Your task to perform on an android device: toggle sleep mode Image 0: 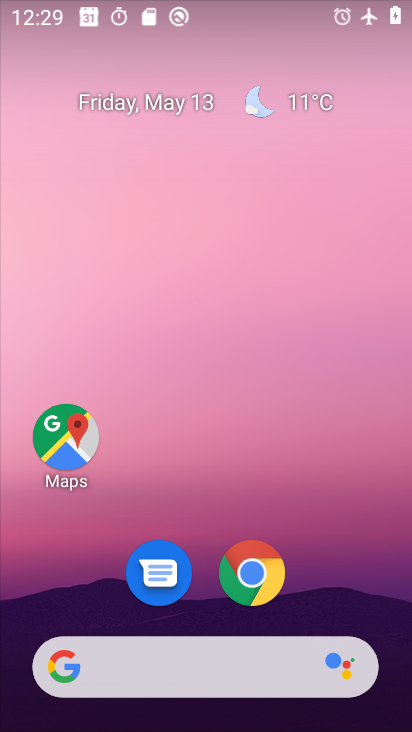
Step 0: drag from (402, 643) to (352, 371)
Your task to perform on an android device: toggle sleep mode Image 1: 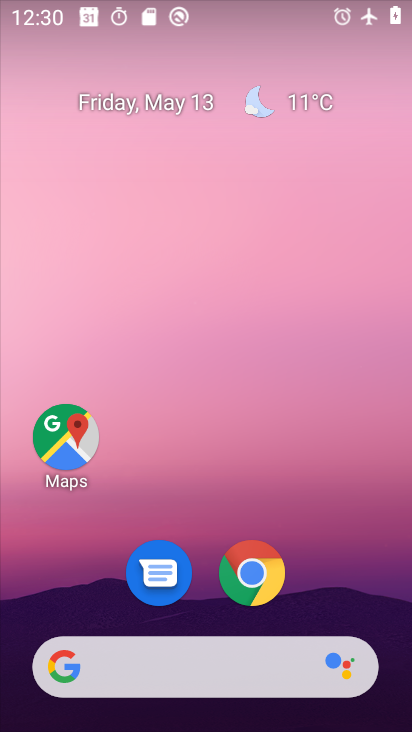
Step 1: drag from (397, 655) to (405, 329)
Your task to perform on an android device: toggle sleep mode Image 2: 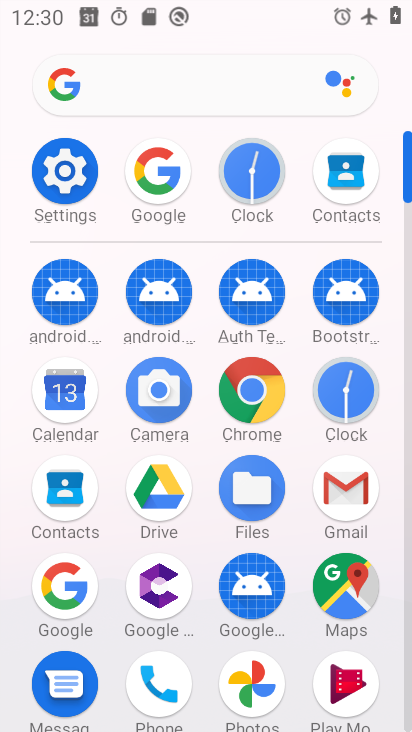
Step 2: click (75, 175)
Your task to perform on an android device: toggle sleep mode Image 3: 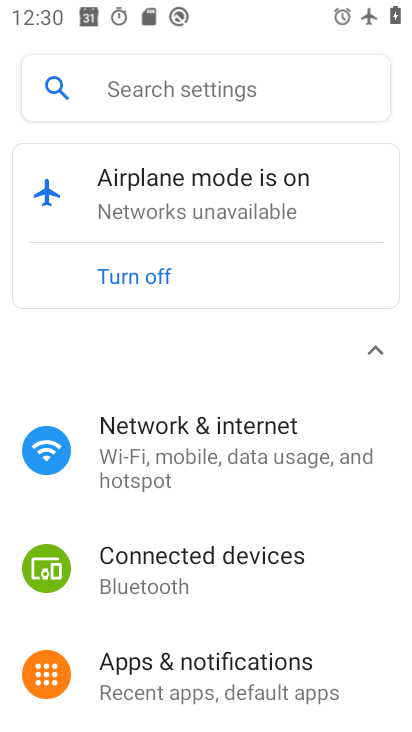
Step 3: drag from (208, 641) to (226, 364)
Your task to perform on an android device: toggle sleep mode Image 4: 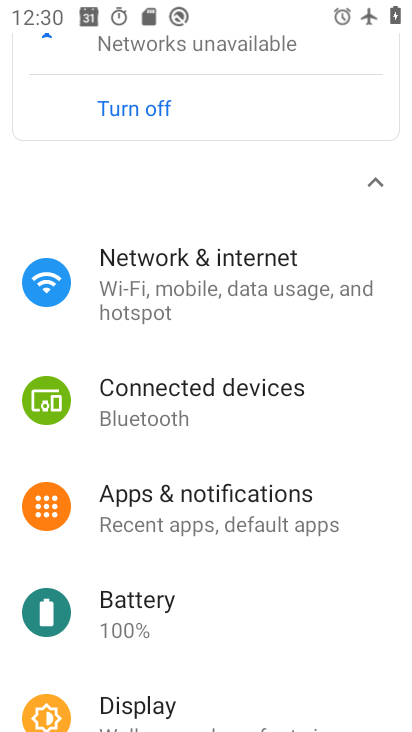
Step 4: click (255, 410)
Your task to perform on an android device: toggle sleep mode Image 5: 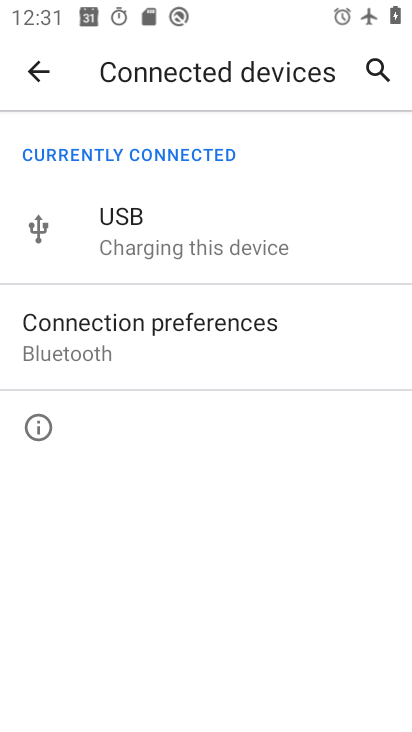
Step 5: click (36, 83)
Your task to perform on an android device: toggle sleep mode Image 6: 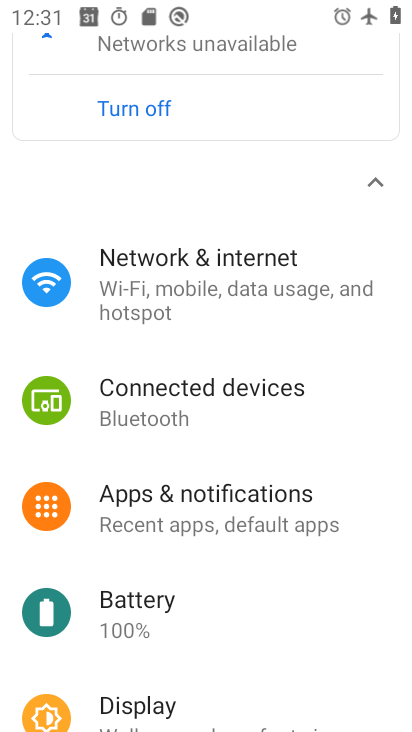
Step 6: click (36, 83)
Your task to perform on an android device: toggle sleep mode Image 7: 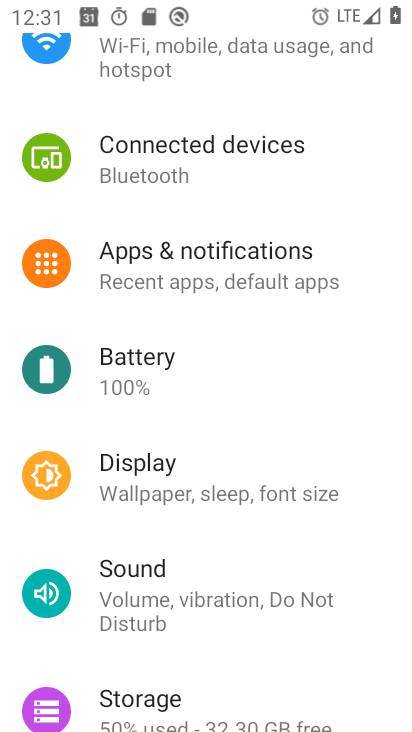
Step 7: click (223, 671)
Your task to perform on an android device: toggle sleep mode Image 8: 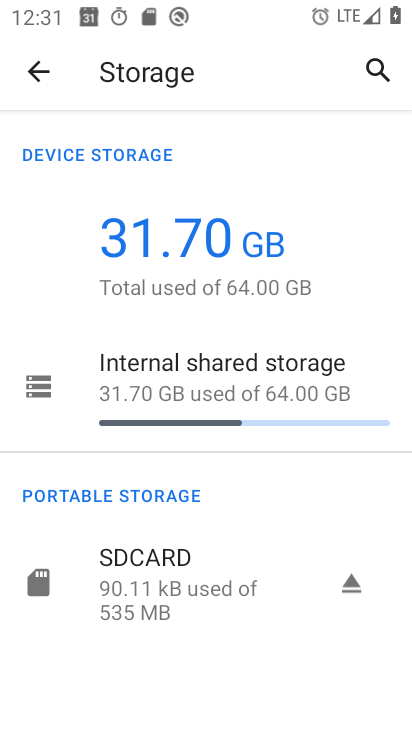
Step 8: click (133, 661)
Your task to perform on an android device: toggle sleep mode Image 9: 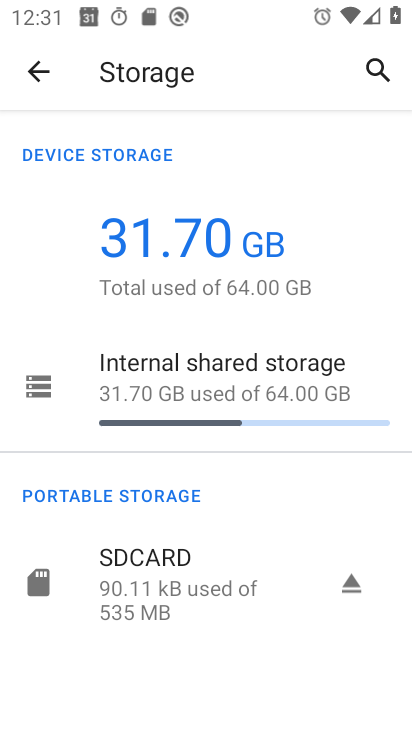
Step 9: click (40, 75)
Your task to perform on an android device: toggle sleep mode Image 10: 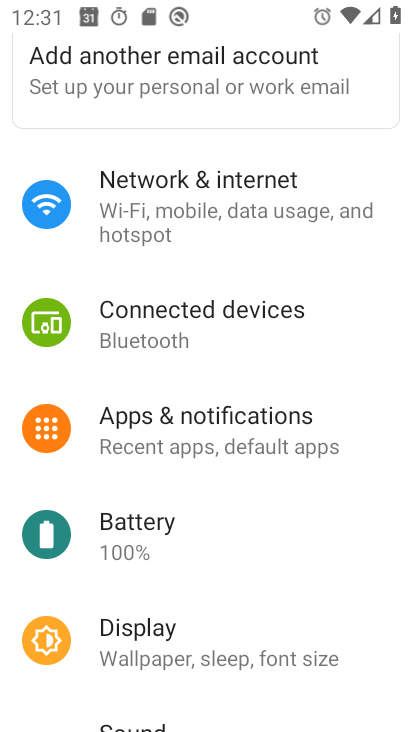
Step 10: click (142, 653)
Your task to perform on an android device: toggle sleep mode Image 11: 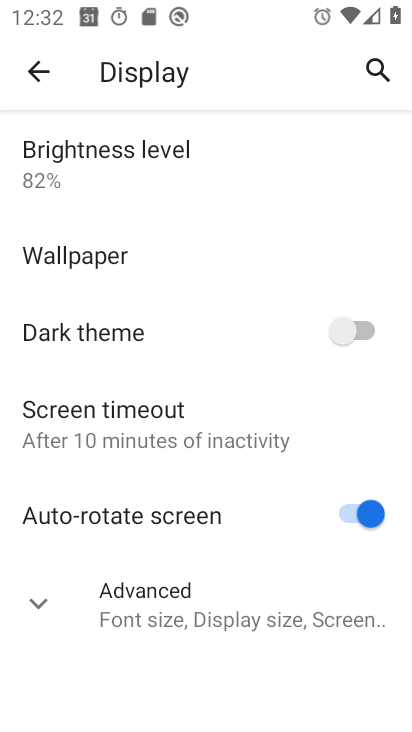
Step 11: click (108, 414)
Your task to perform on an android device: toggle sleep mode Image 12: 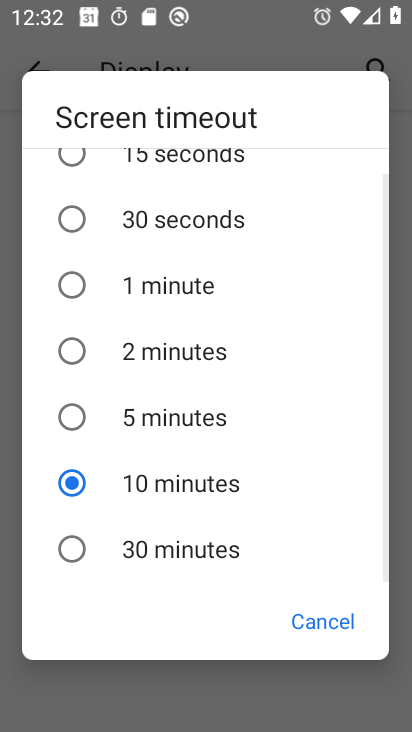
Step 12: click (69, 404)
Your task to perform on an android device: toggle sleep mode Image 13: 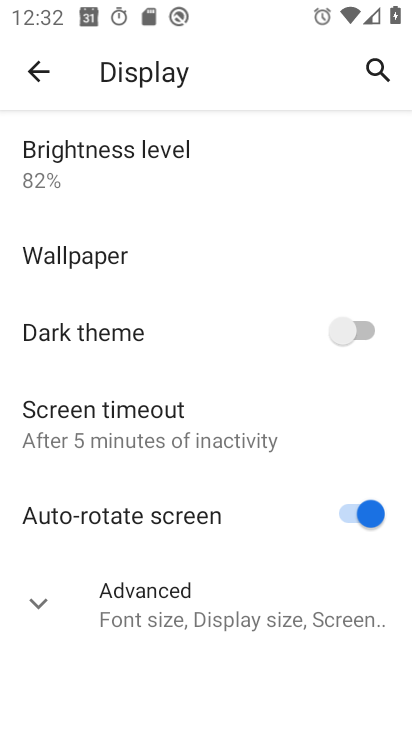
Step 13: task complete